Your task to perform on an android device: turn off sleep mode Image 0: 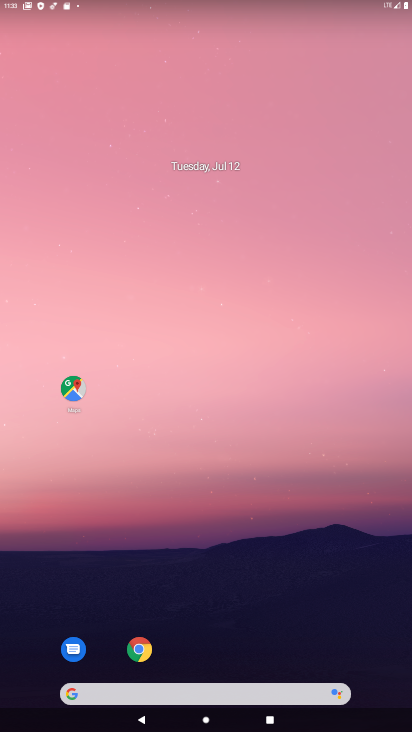
Step 0: drag from (220, 660) to (241, 526)
Your task to perform on an android device: turn off sleep mode Image 1: 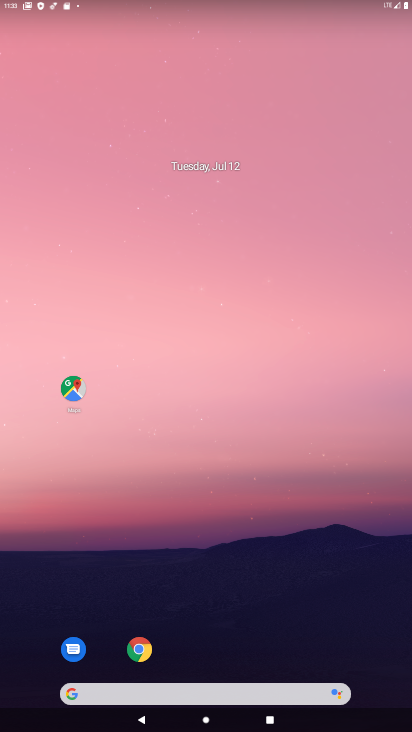
Step 1: drag from (229, 668) to (173, 236)
Your task to perform on an android device: turn off sleep mode Image 2: 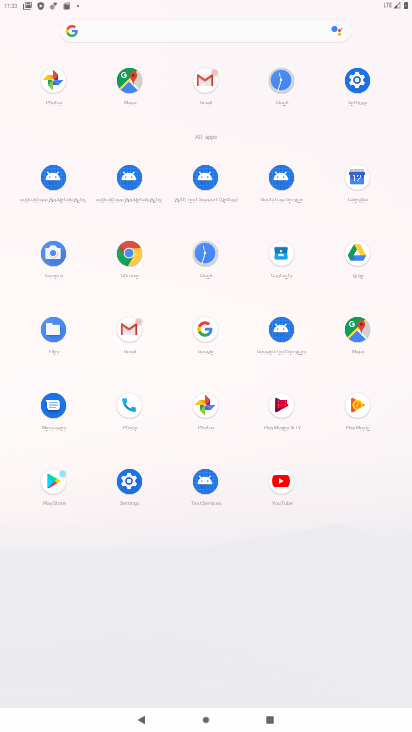
Step 2: click (351, 77)
Your task to perform on an android device: turn off sleep mode Image 3: 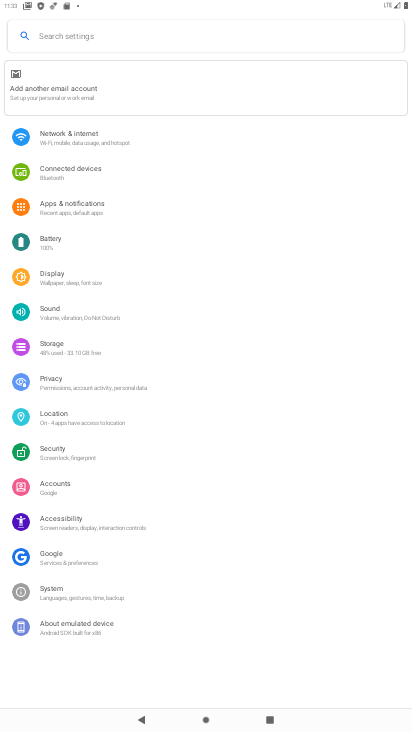
Step 3: click (63, 270)
Your task to perform on an android device: turn off sleep mode Image 4: 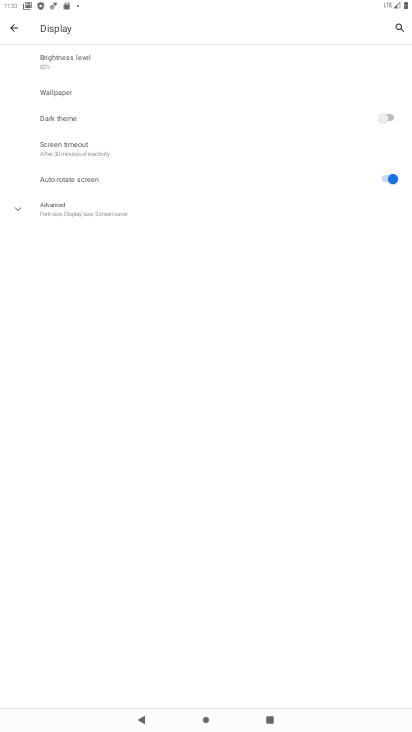
Step 4: click (30, 207)
Your task to perform on an android device: turn off sleep mode Image 5: 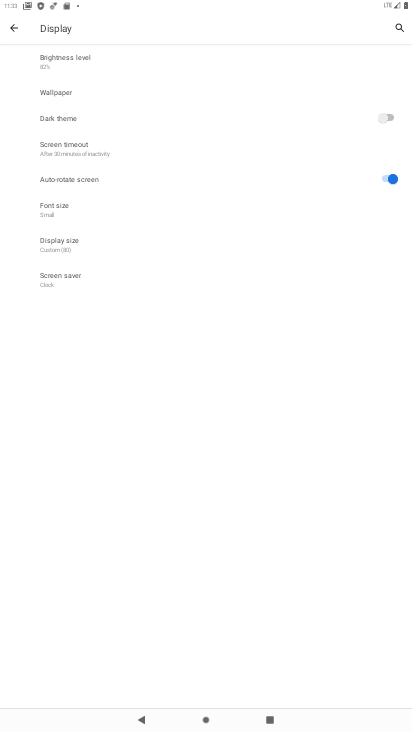
Step 5: click (82, 238)
Your task to perform on an android device: turn off sleep mode Image 6: 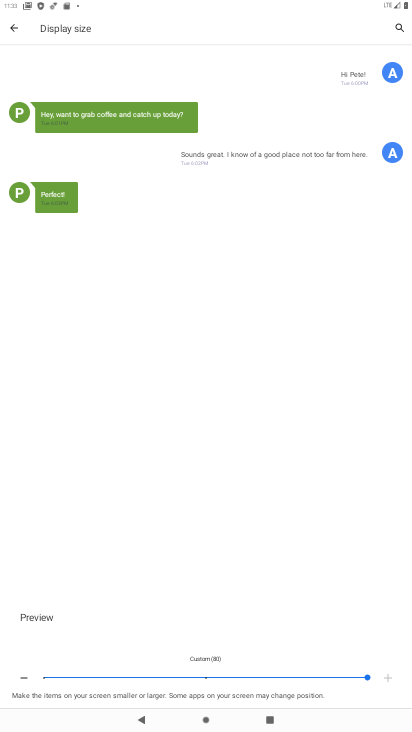
Step 6: click (40, 673)
Your task to perform on an android device: turn off sleep mode Image 7: 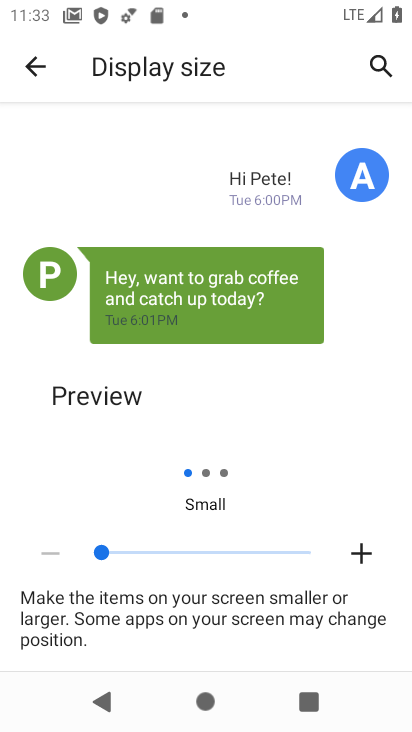
Step 7: click (206, 549)
Your task to perform on an android device: turn off sleep mode Image 8: 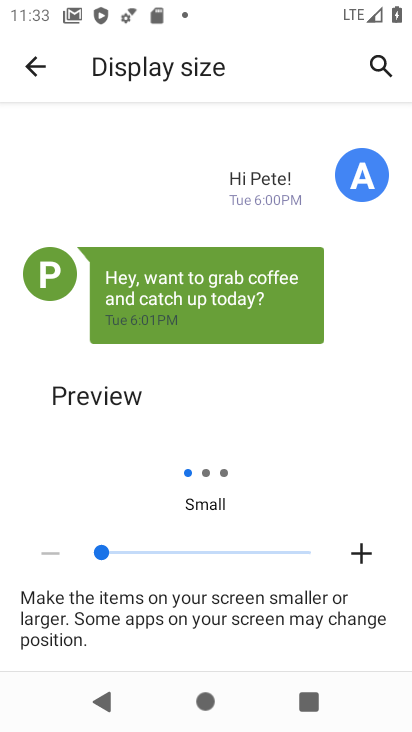
Step 8: click (203, 473)
Your task to perform on an android device: turn off sleep mode Image 9: 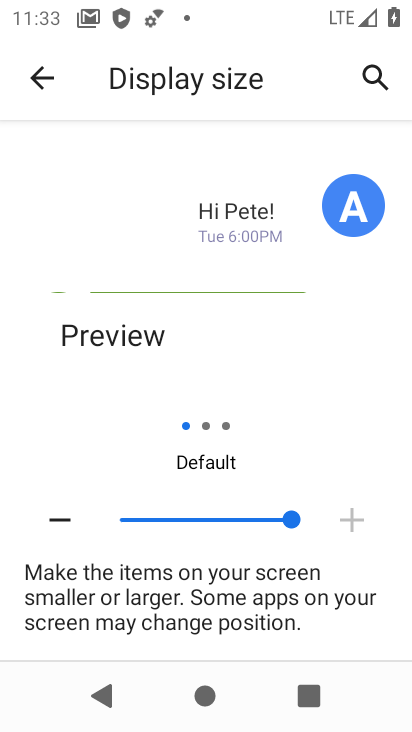
Step 9: task complete